Your task to perform on an android device: Do I have any events today? Image 0: 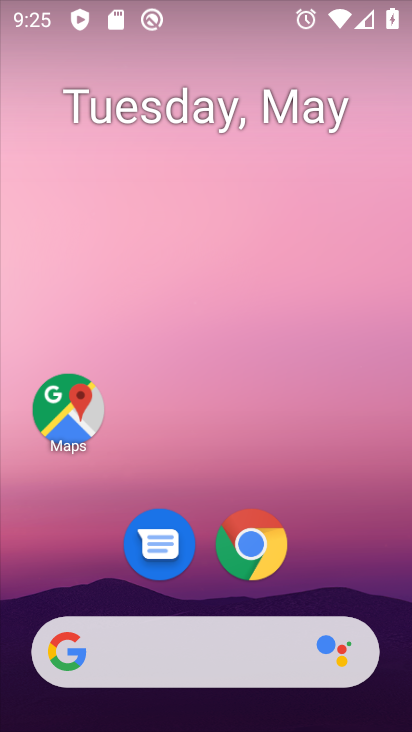
Step 0: drag from (358, 505) to (333, 189)
Your task to perform on an android device: Do I have any events today? Image 1: 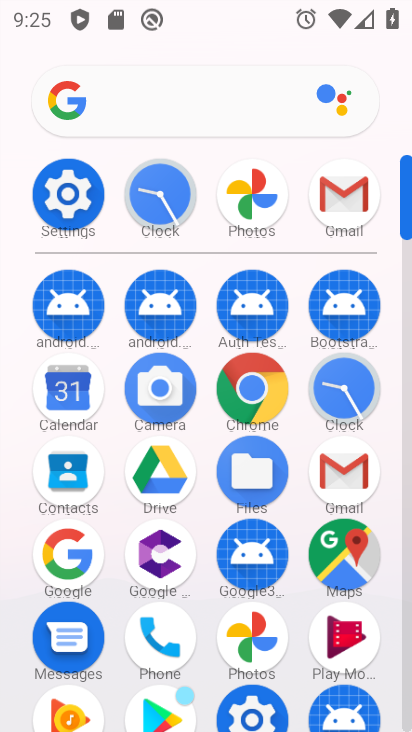
Step 1: click (242, 387)
Your task to perform on an android device: Do I have any events today? Image 2: 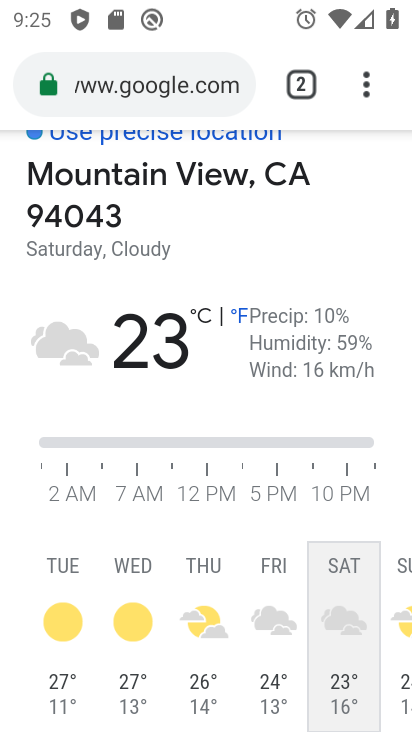
Step 2: click (232, 101)
Your task to perform on an android device: Do I have any events today? Image 3: 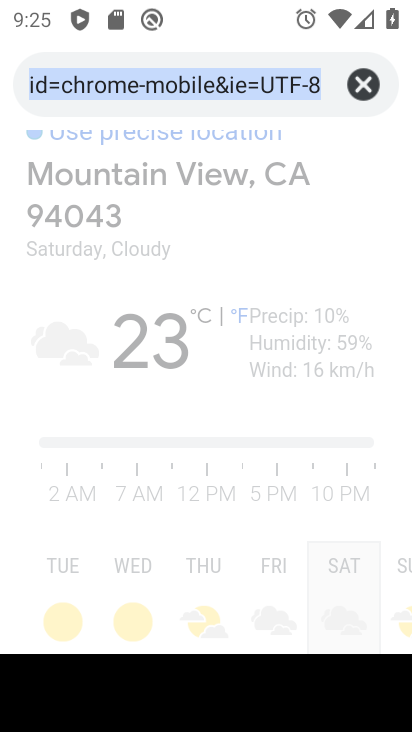
Step 3: click (375, 84)
Your task to perform on an android device: Do I have any events today? Image 4: 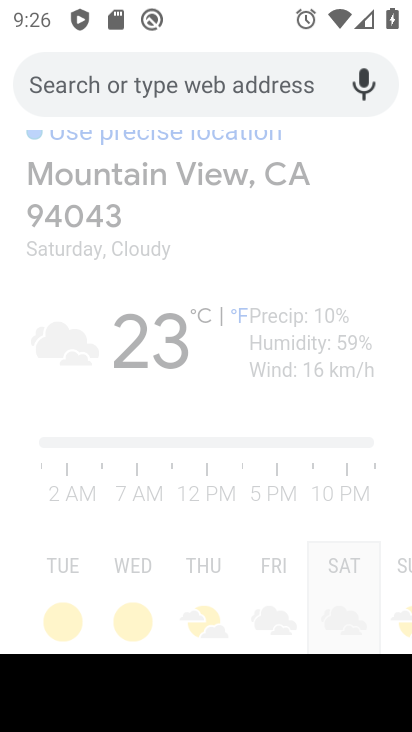
Step 4: type "do i have any events today"
Your task to perform on an android device: Do I have any events today? Image 5: 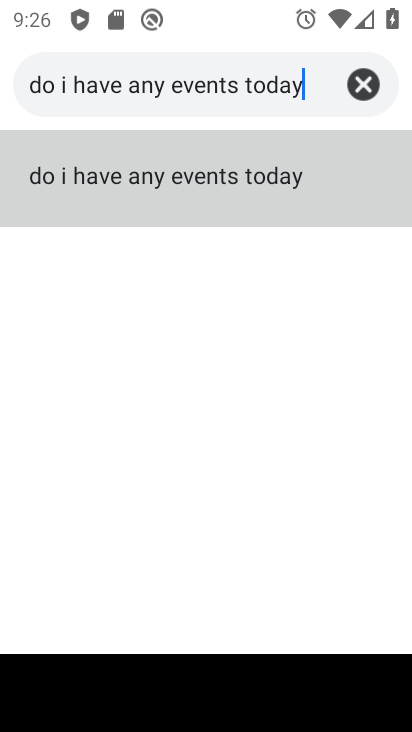
Step 5: click (244, 179)
Your task to perform on an android device: Do I have any events today? Image 6: 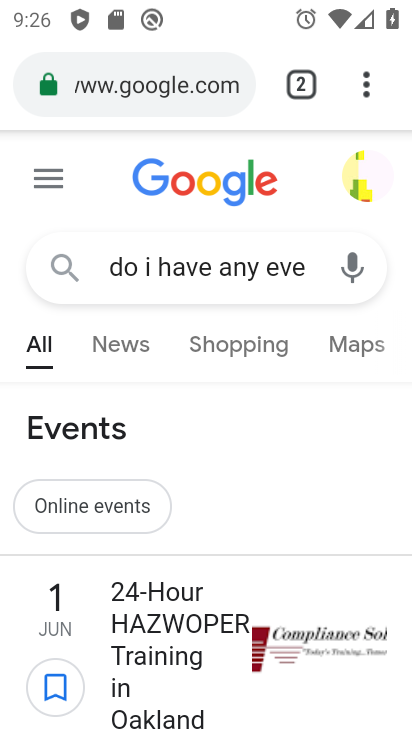
Step 6: task complete